Your task to perform on an android device: Open calendar and show me the third week of next month Image 0: 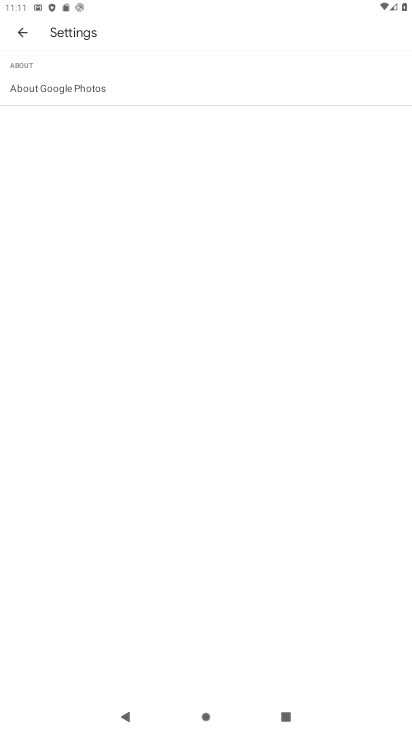
Step 0: drag from (258, 355) to (258, 196)
Your task to perform on an android device: Open calendar and show me the third week of next month Image 1: 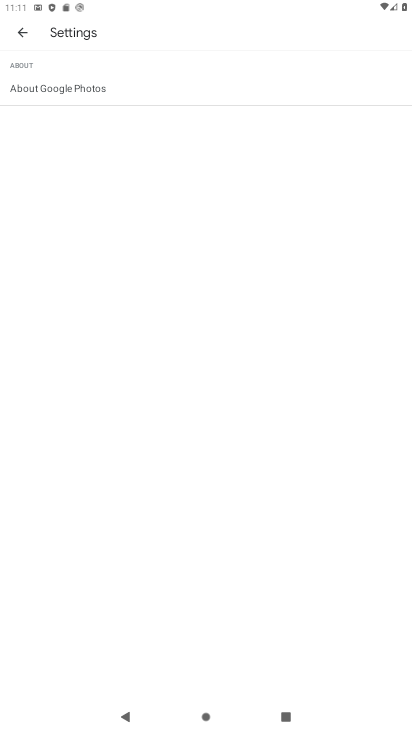
Step 1: press home button
Your task to perform on an android device: Open calendar and show me the third week of next month Image 2: 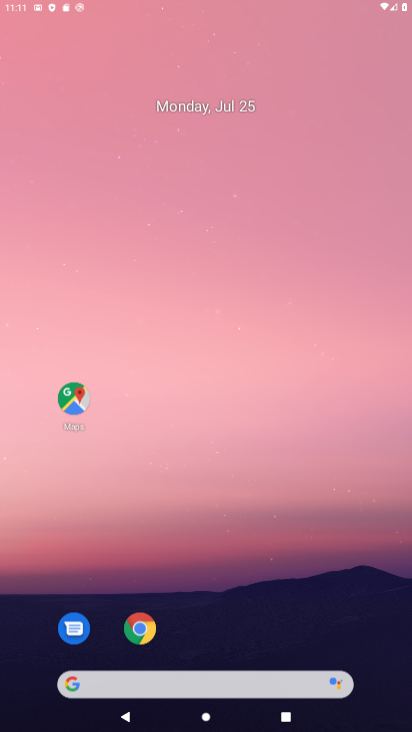
Step 2: drag from (279, 278) to (314, 141)
Your task to perform on an android device: Open calendar and show me the third week of next month Image 3: 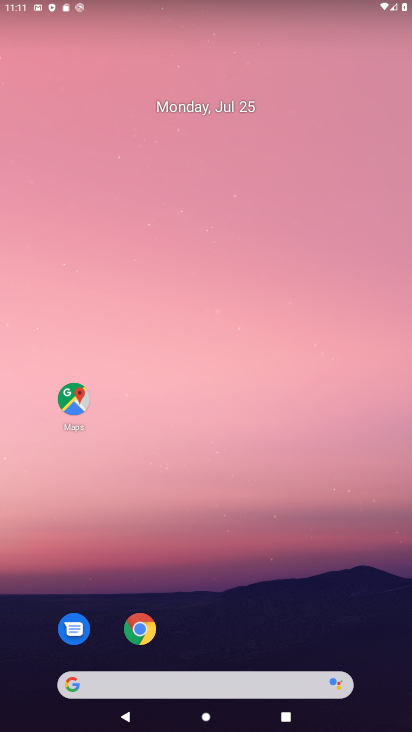
Step 3: drag from (200, 620) to (262, 84)
Your task to perform on an android device: Open calendar and show me the third week of next month Image 4: 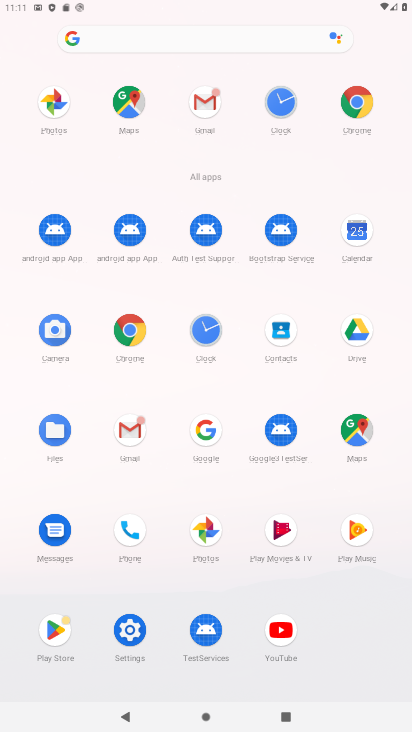
Step 4: click (356, 217)
Your task to perform on an android device: Open calendar and show me the third week of next month Image 5: 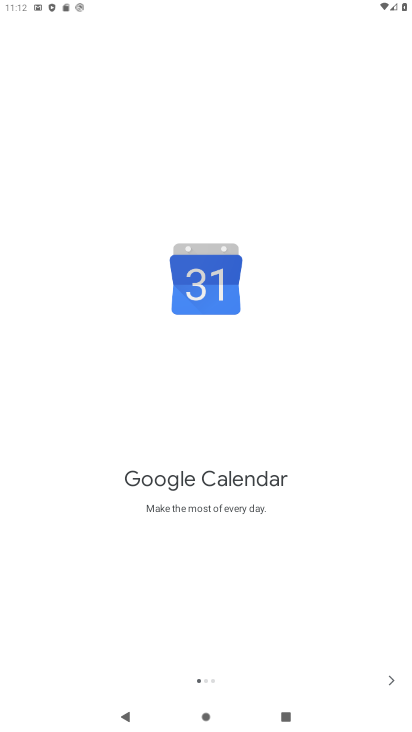
Step 5: click (387, 681)
Your task to perform on an android device: Open calendar and show me the third week of next month Image 6: 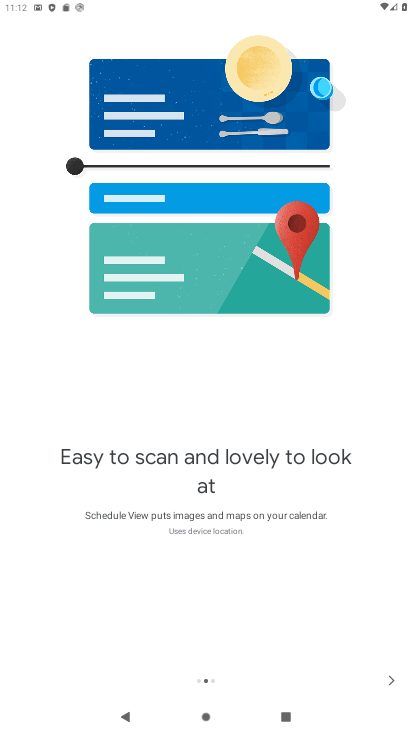
Step 6: click (391, 679)
Your task to perform on an android device: Open calendar and show me the third week of next month Image 7: 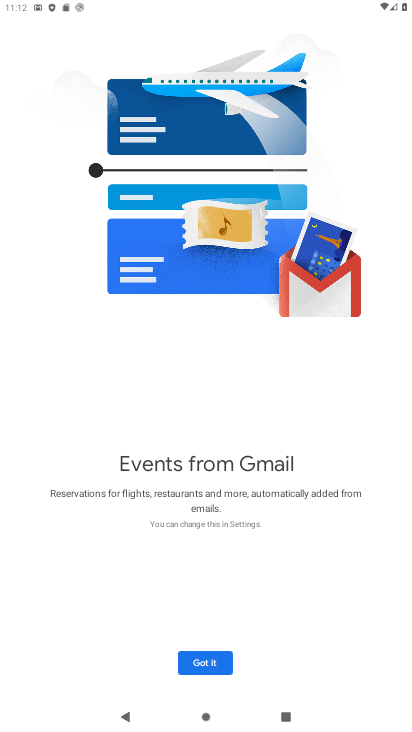
Step 7: click (392, 678)
Your task to perform on an android device: Open calendar and show me the third week of next month Image 8: 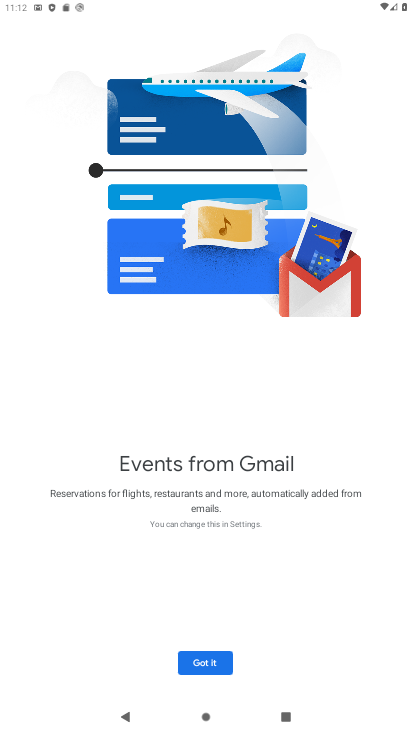
Step 8: click (204, 669)
Your task to perform on an android device: Open calendar and show me the third week of next month Image 9: 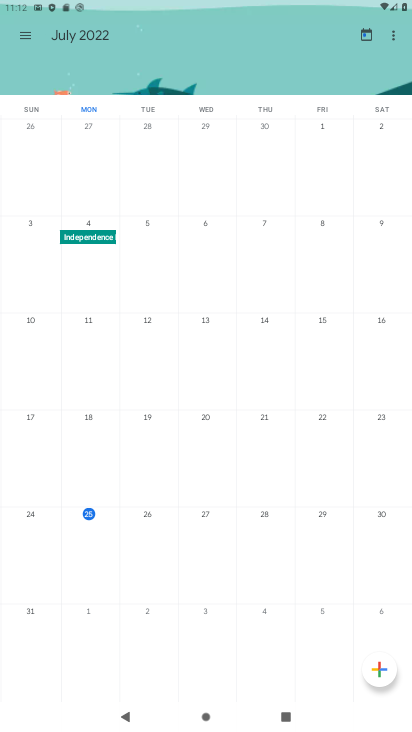
Step 9: click (370, 24)
Your task to perform on an android device: Open calendar and show me the third week of next month Image 10: 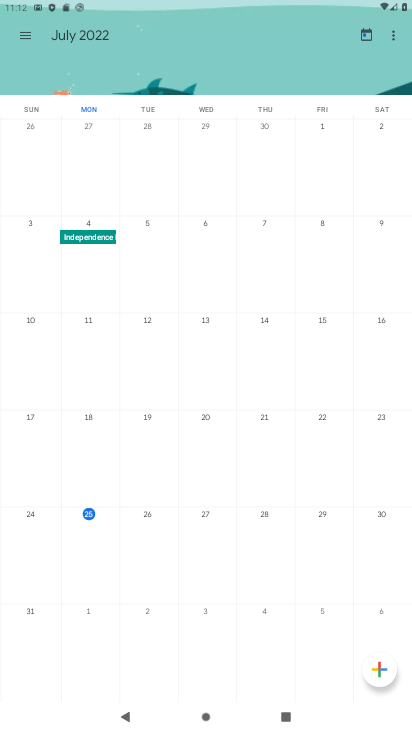
Step 10: click (366, 32)
Your task to perform on an android device: Open calendar and show me the third week of next month Image 11: 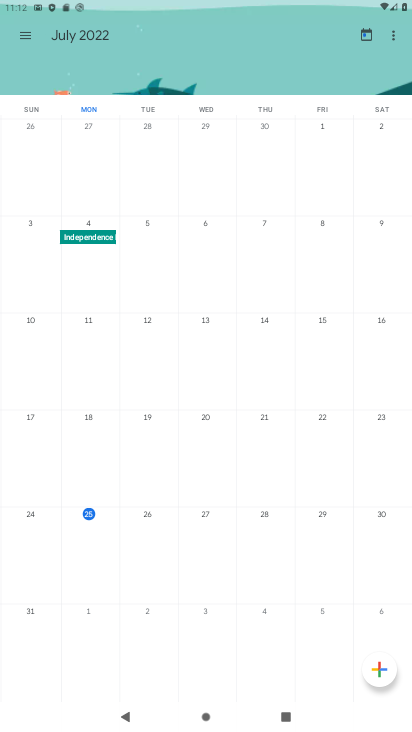
Step 11: drag from (328, 546) to (0, 568)
Your task to perform on an android device: Open calendar and show me the third week of next month Image 12: 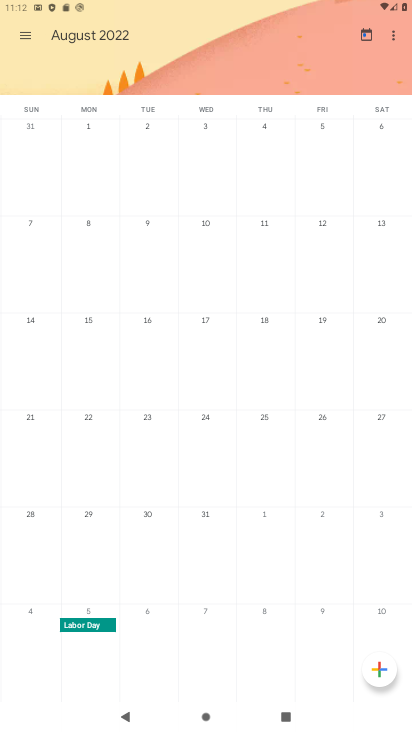
Step 12: click (262, 318)
Your task to perform on an android device: Open calendar and show me the third week of next month Image 13: 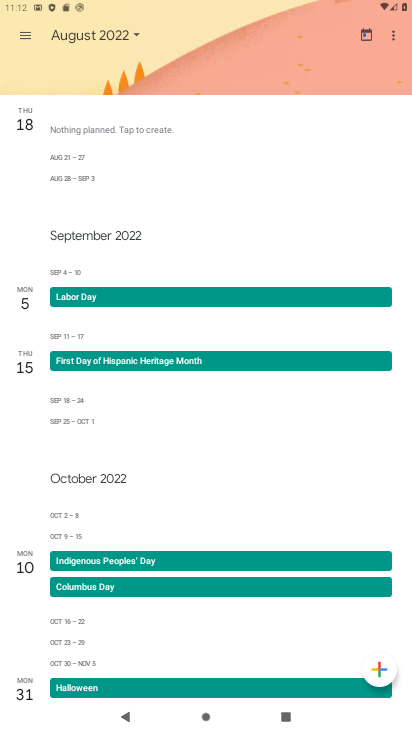
Step 13: task complete